Your task to perform on an android device: Open calendar and show me the third week of next month Image 0: 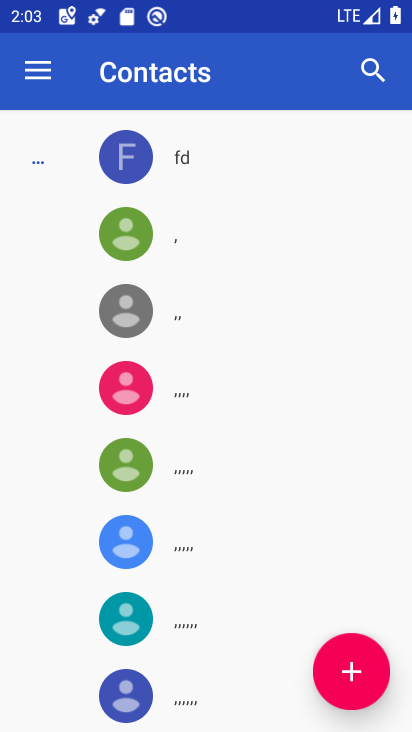
Step 0: press home button
Your task to perform on an android device: Open calendar and show me the third week of next month Image 1: 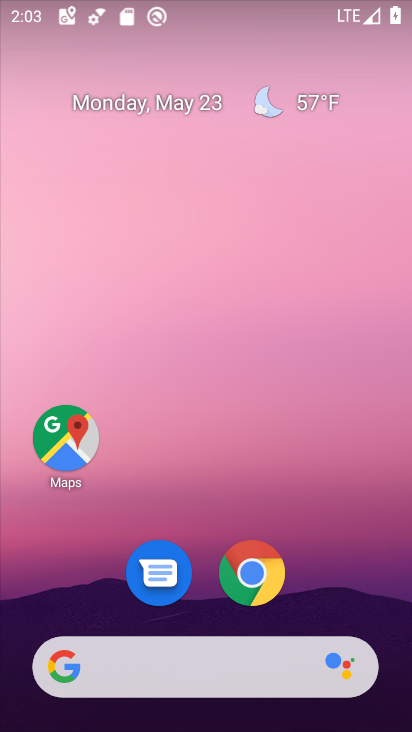
Step 1: drag from (311, 546) to (293, 176)
Your task to perform on an android device: Open calendar and show me the third week of next month Image 2: 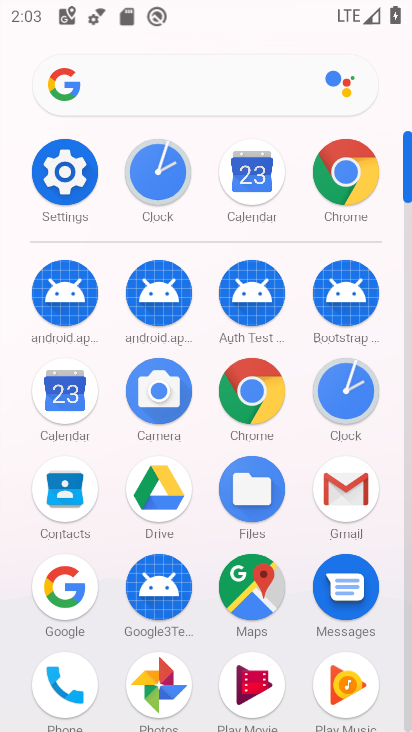
Step 2: click (249, 191)
Your task to perform on an android device: Open calendar and show me the third week of next month Image 3: 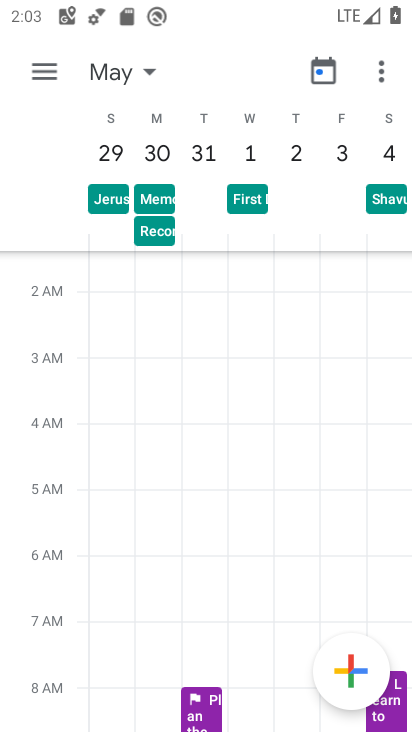
Step 3: click (49, 61)
Your task to perform on an android device: Open calendar and show me the third week of next month Image 4: 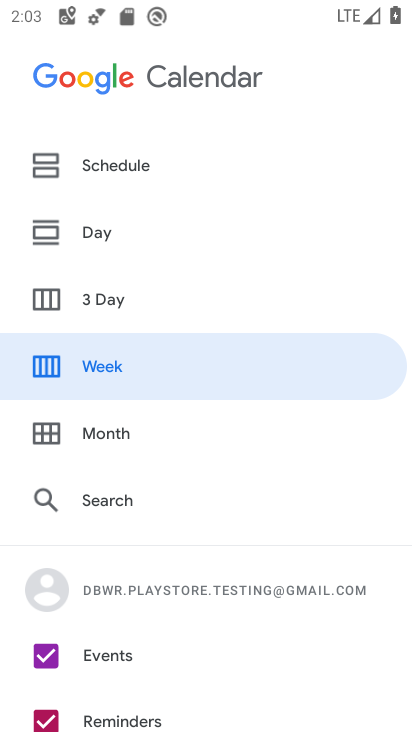
Step 4: click (120, 361)
Your task to perform on an android device: Open calendar and show me the third week of next month Image 5: 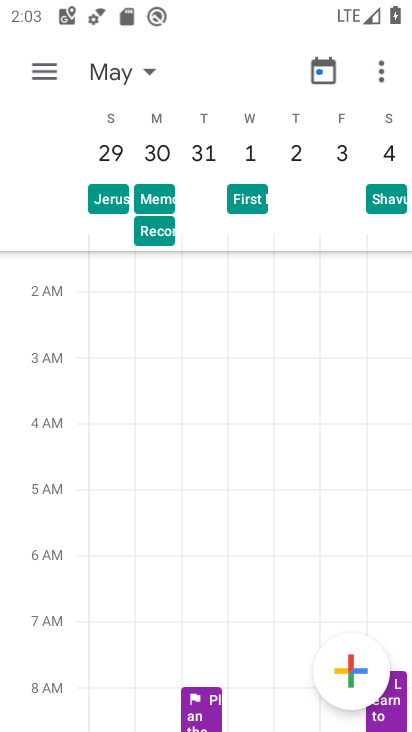
Step 5: task complete